Your task to perform on an android device: What is the speed of a bicycle? Image 0: 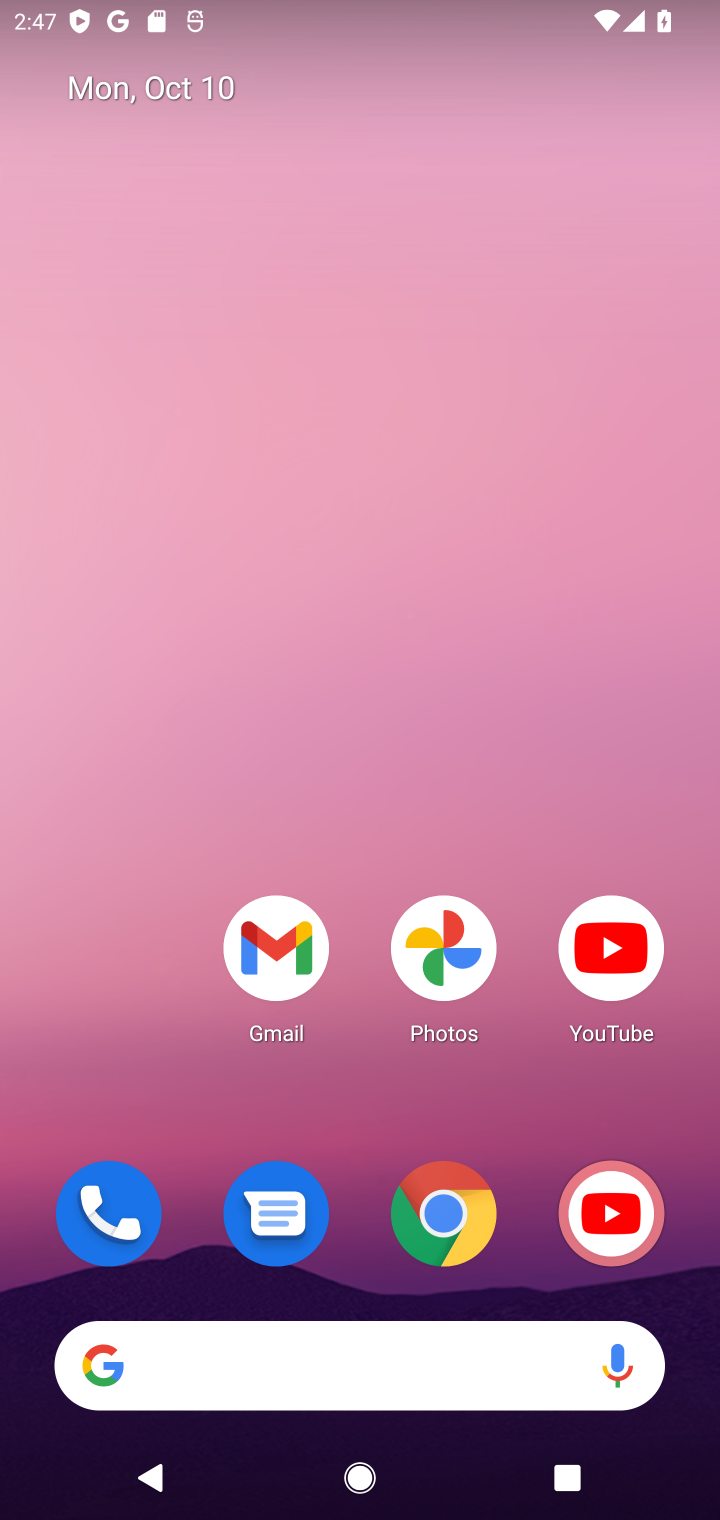
Step 0: click (457, 1199)
Your task to perform on an android device: What is the speed of a bicycle? Image 1: 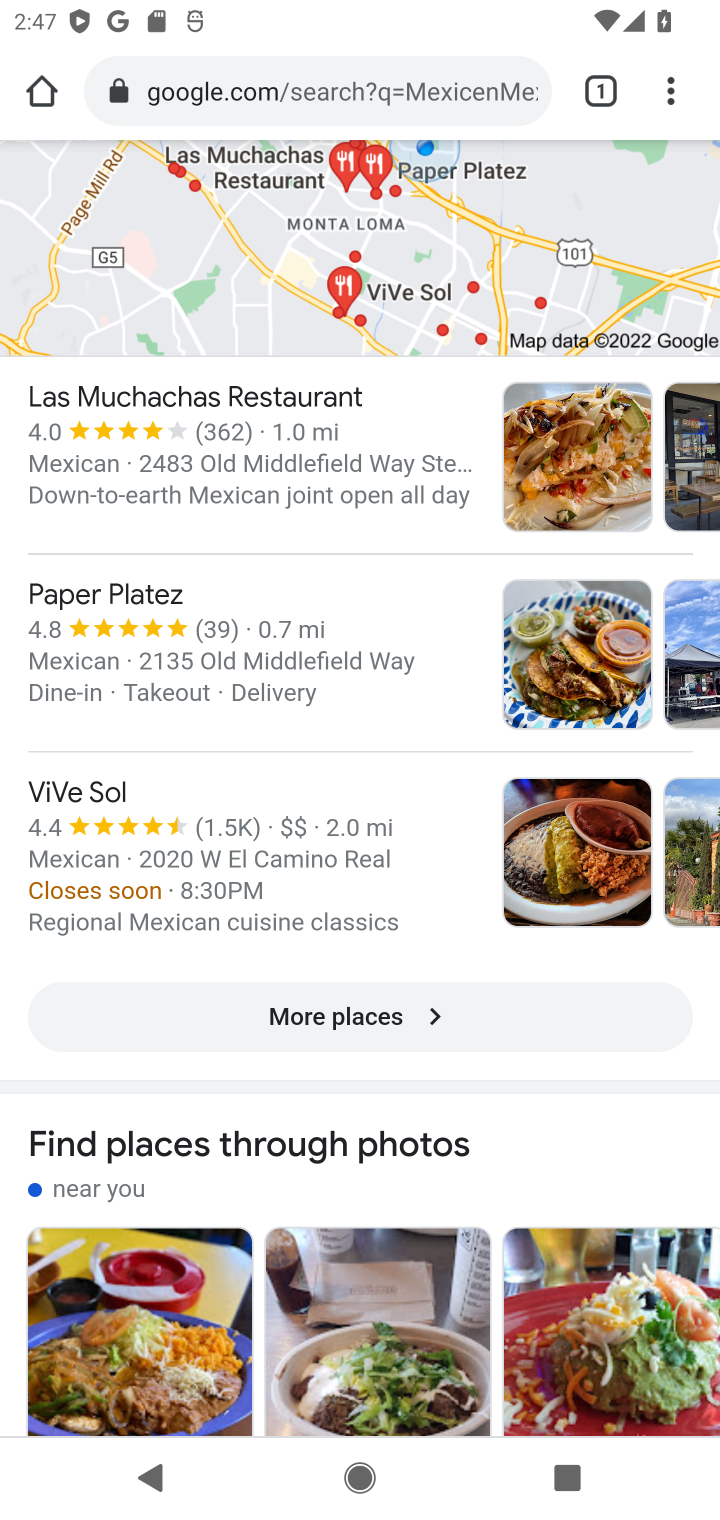
Step 1: drag from (284, 251) to (175, 1355)
Your task to perform on an android device: What is the speed of a bicycle? Image 2: 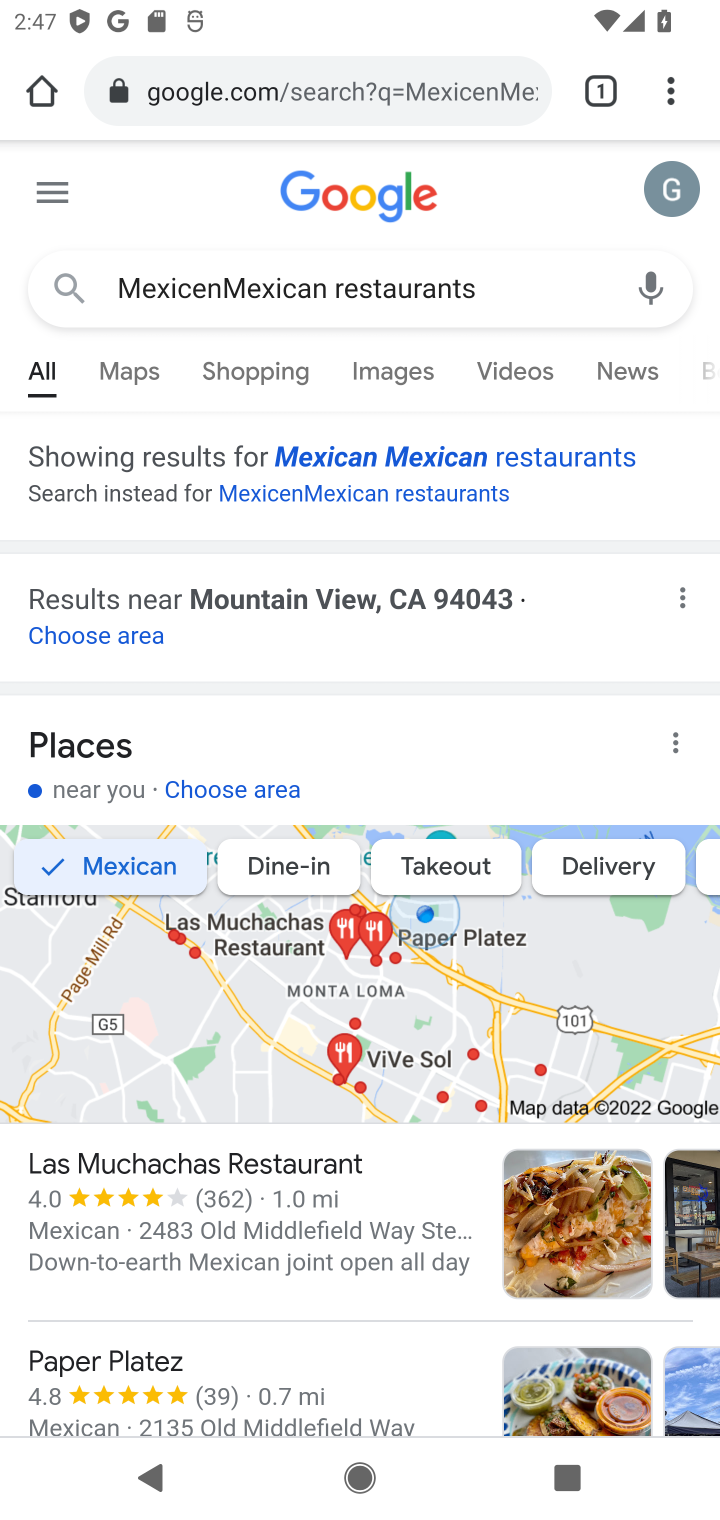
Step 2: click (360, 84)
Your task to perform on an android device: What is the speed of a bicycle? Image 3: 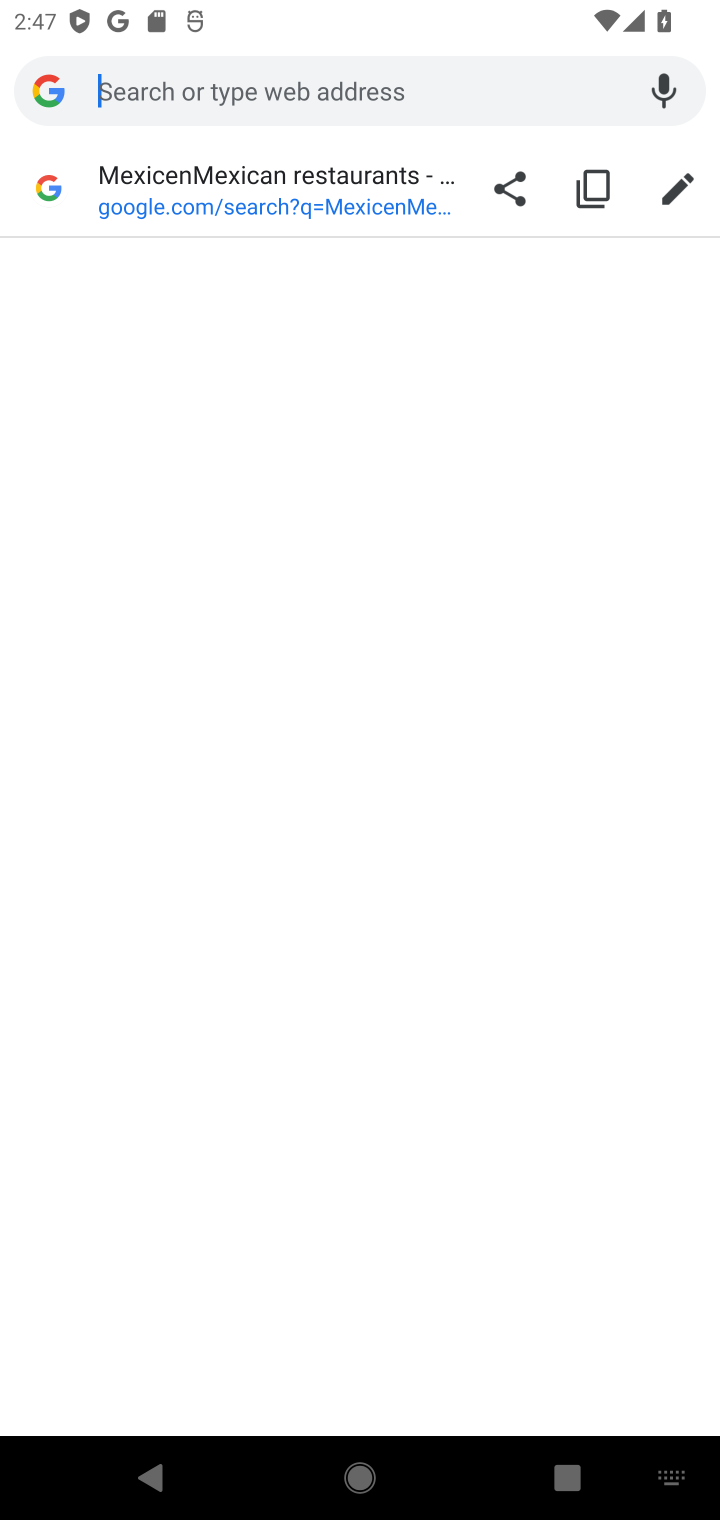
Step 3: type "What is the speed of a bicycle?"
Your task to perform on an android device: What is the speed of a bicycle? Image 4: 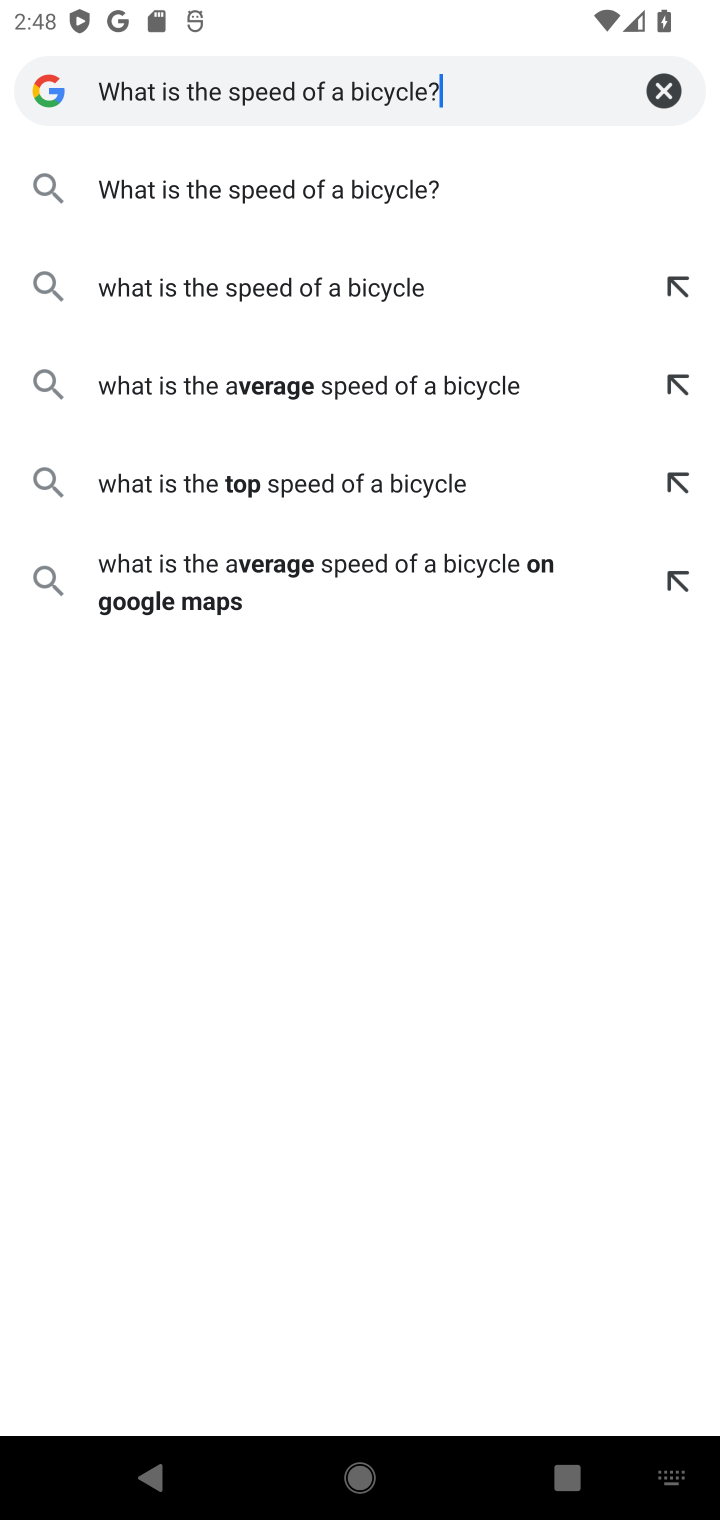
Step 4: click (363, 188)
Your task to perform on an android device: What is the speed of a bicycle? Image 5: 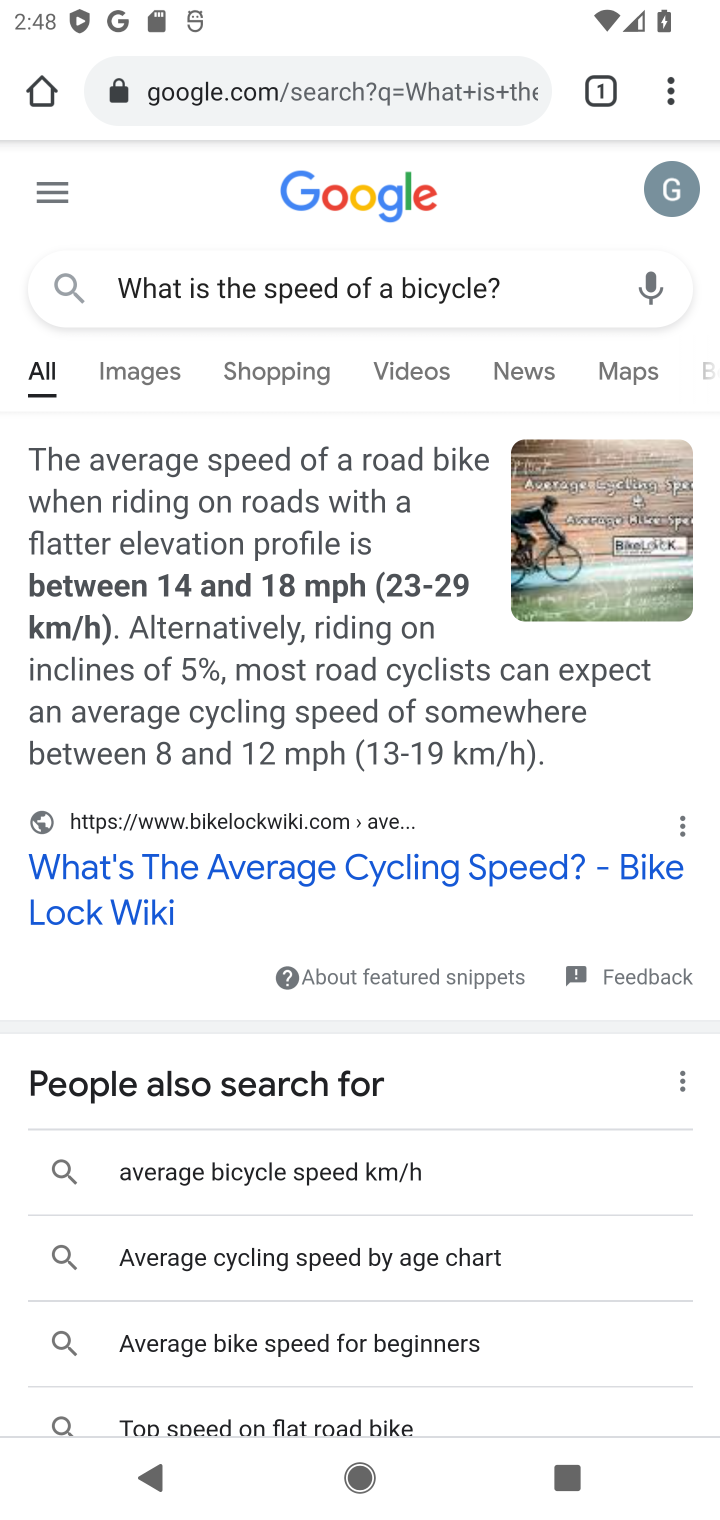
Step 5: task complete